Your task to perform on an android device: Open Reddit.com Image 0: 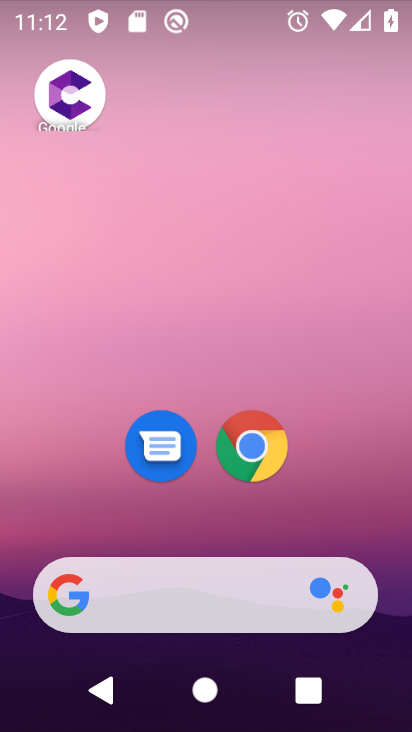
Step 0: click (269, 447)
Your task to perform on an android device: Open Reddit.com Image 1: 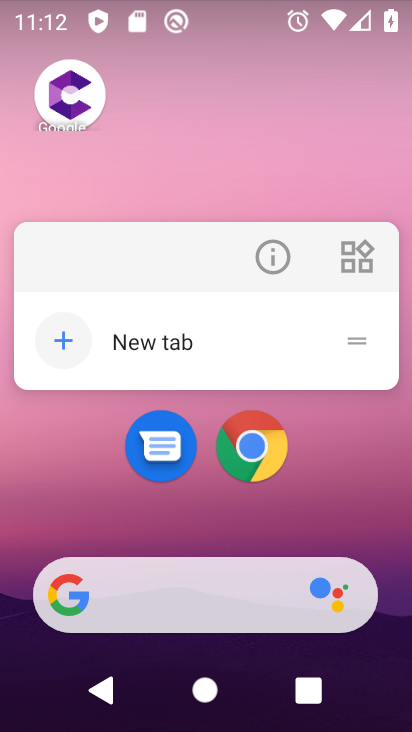
Step 1: click (248, 459)
Your task to perform on an android device: Open Reddit.com Image 2: 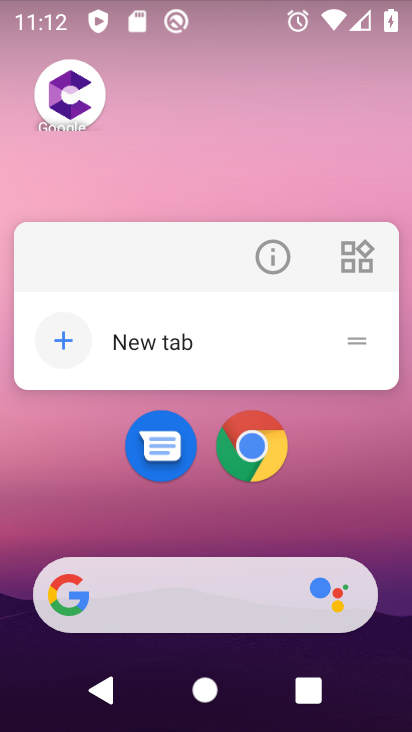
Step 2: click (267, 456)
Your task to perform on an android device: Open Reddit.com Image 3: 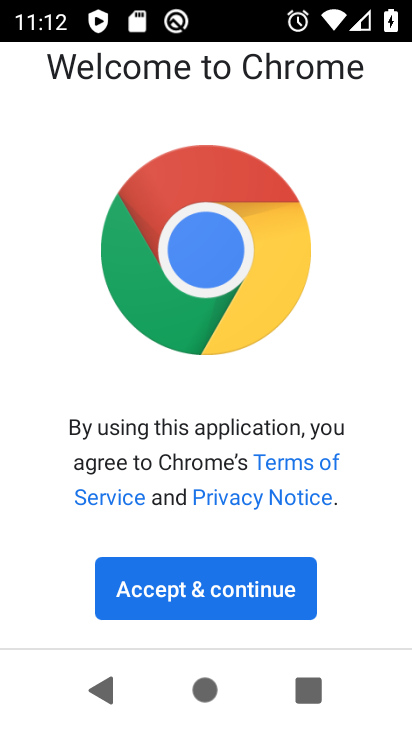
Step 3: click (221, 597)
Your task to perform on an android device: Open Reddit.com Image 4: 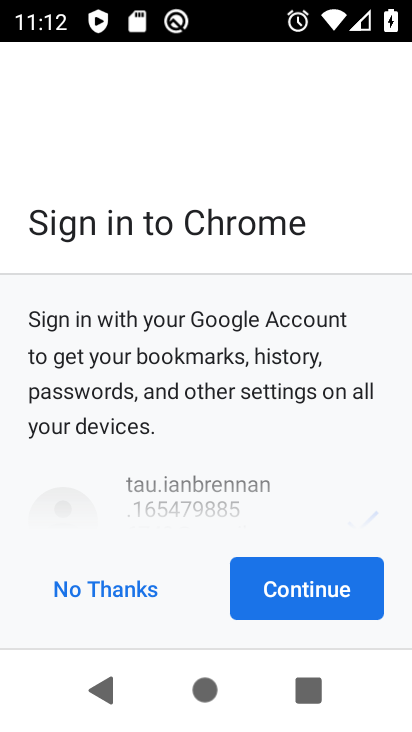
Step 4: click (309, 588)
Your task to perform on an android device: Open Reddit.com Image 5: 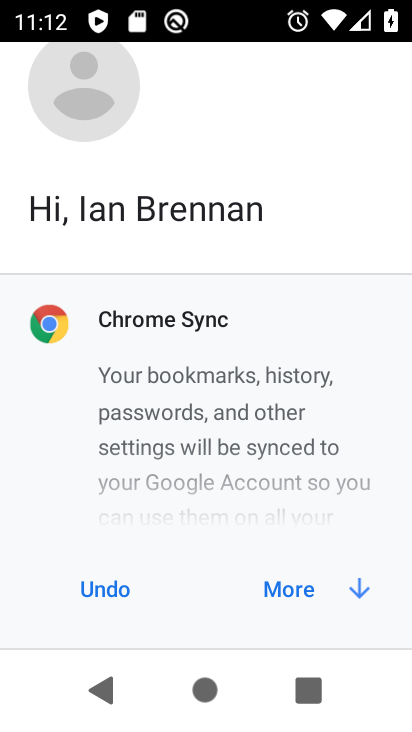
Step 5: click (309, 588)
Your task to perform on an android device: Open Reddit.com Image 6: 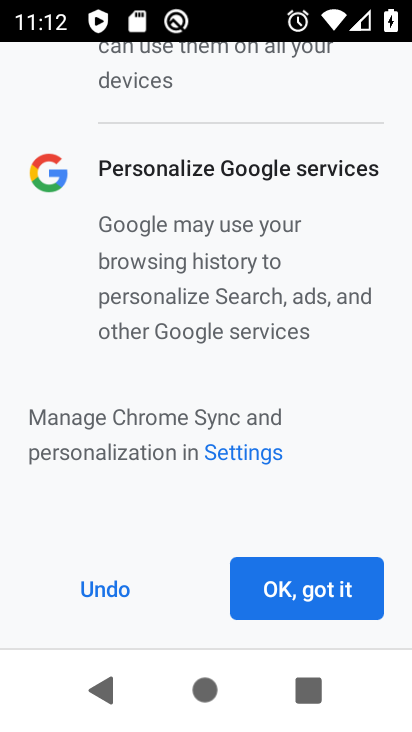
Step 6: click (316, 586)
Your task to perform on an android device: Open Reddit.com Image 7: 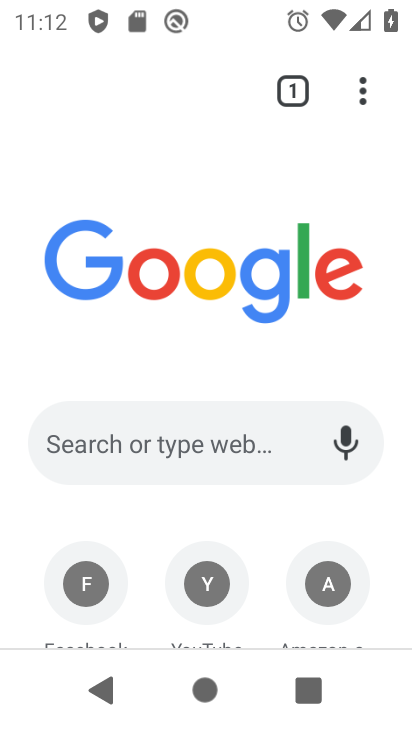
Step 7: click (146, 100)
Your task to perform on an android device: Open Reddit.com Image 8: 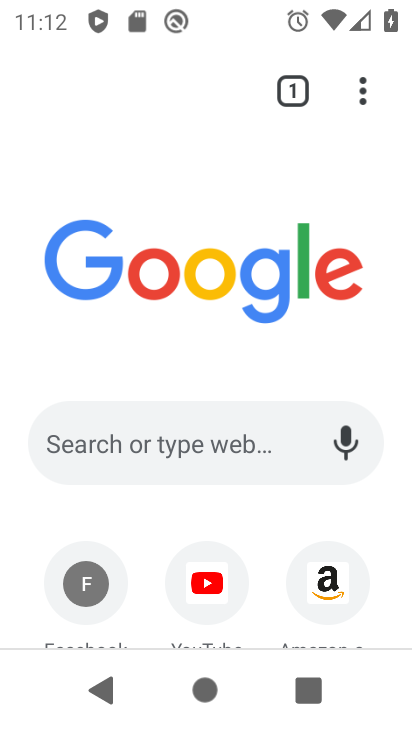
Step 8: click (173, 445)
Your task to perform on an android device: Open Reddit.com Image 9: 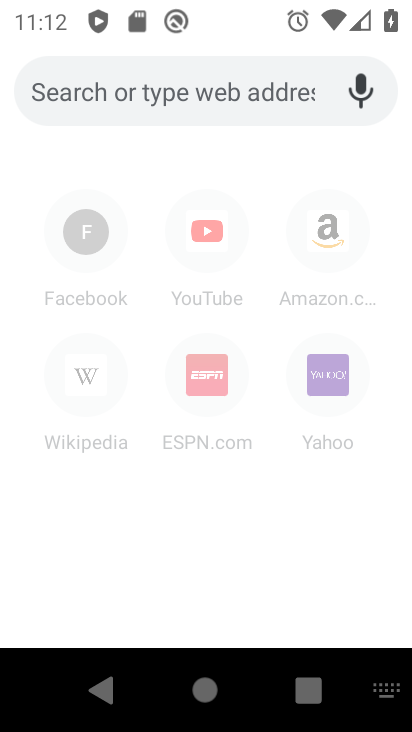
Step 9: type "Reddit.com"
Your task to perform on an android device: Open Reddit.com Image 10: 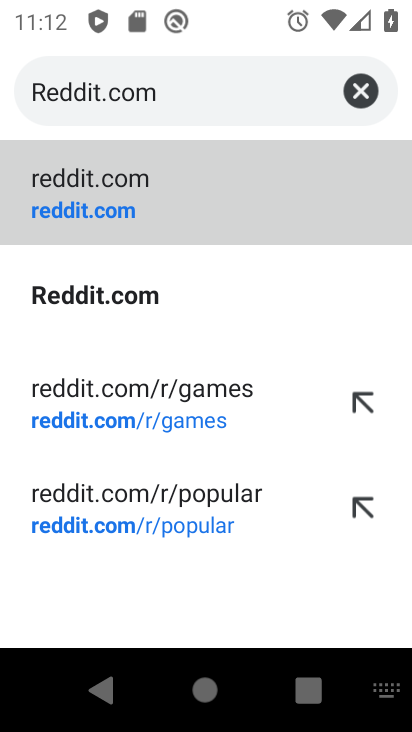
Step 10: click (216, 187)
Your task to perform on an android device: Open Reddit.com Image 11: 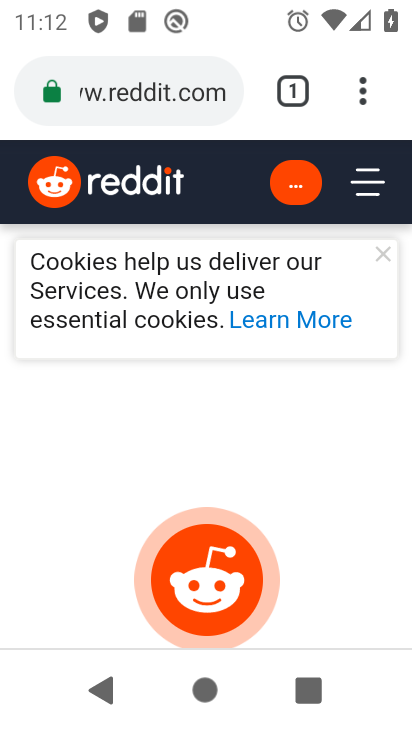
Step 11: task complete